Your task to perform on an android device: change notifications settings Image 0: 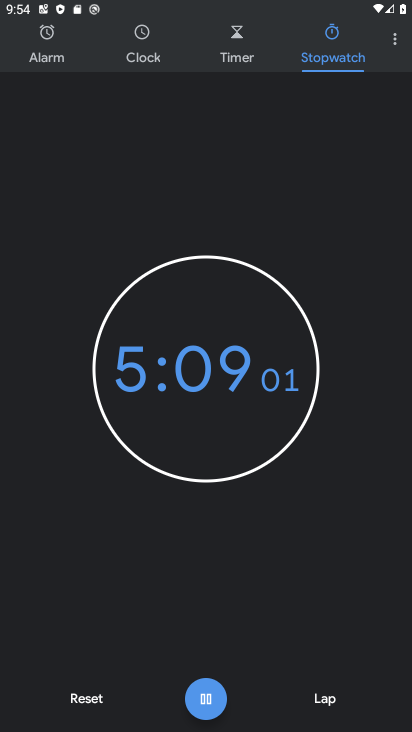
Step 0: press home button
Your task to perform on an android device: change notifications settings Image 1: 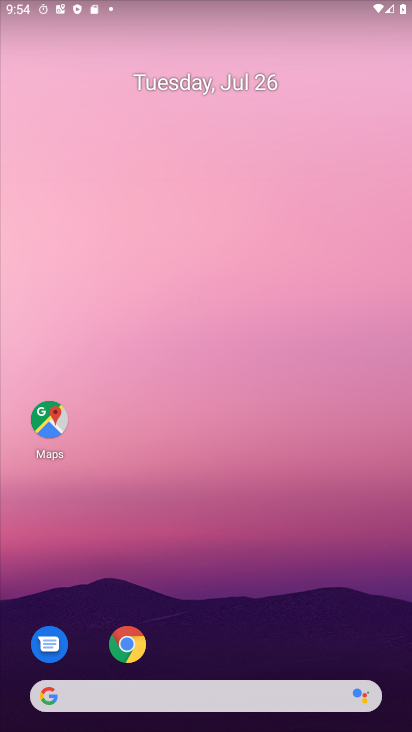
Step 1: drag from (241, 639) to (307, 14)
Your task to perform on an android device: change notifications settings Image 2: 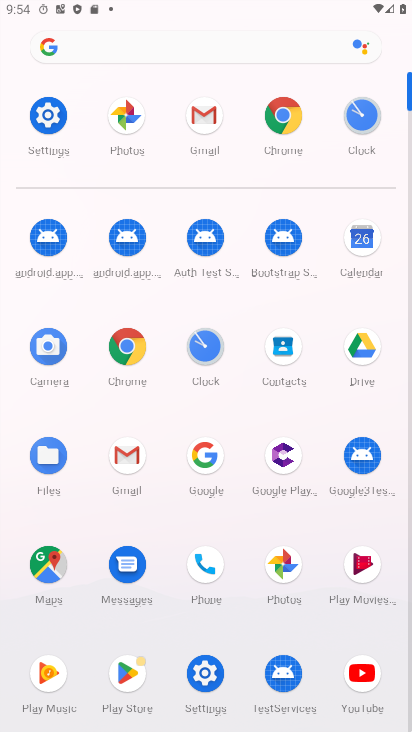
Step 2: click (202, 658)
Your task to perform on an android device: change notifications settings Image 3: 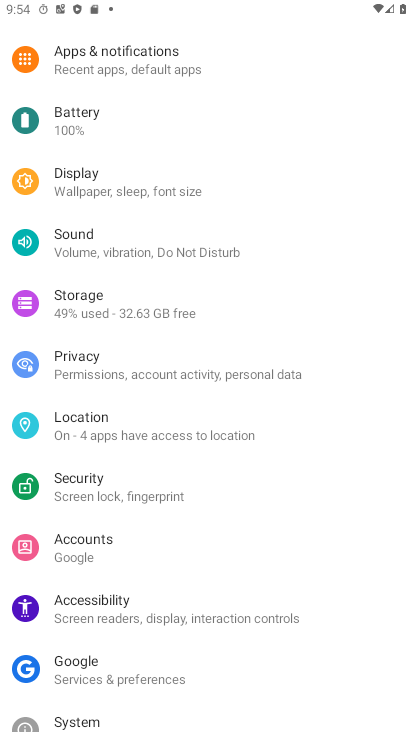
Step 3: click (143, 71)
Your task to perform on an android device: change notifications settings Image 4: 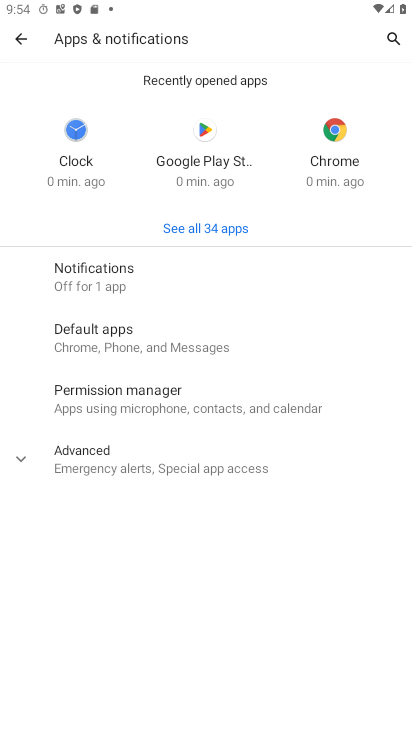
Step 4: click (123, 286)
Your task to perform on an android device: change notifications settings Image 5: 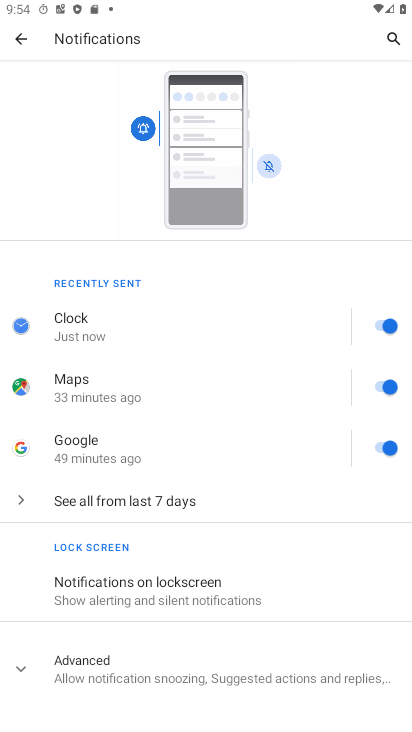
Step 5: click (134, 491)
Your task to perform on an android device: change notifications settings Image 6: 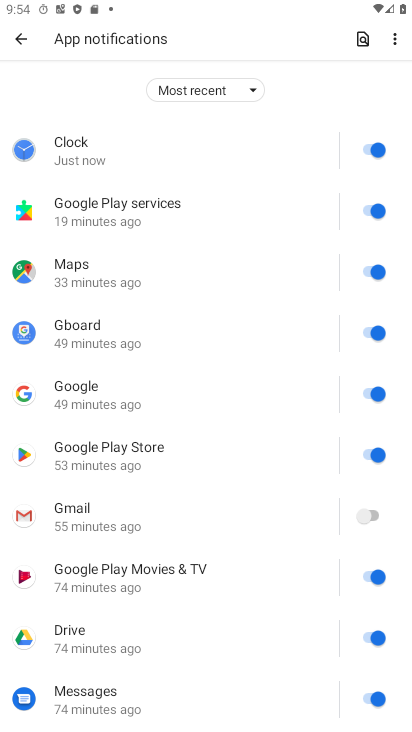
Step 6: click (357, 148)
Your task to perform on an android device: change notifications settings Image 7: 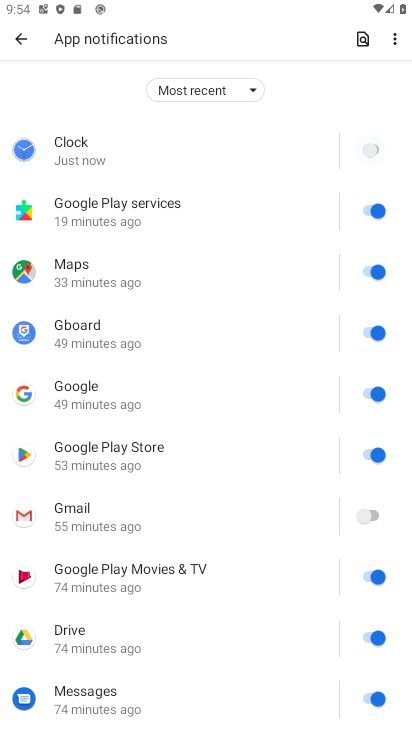
Step 7: click (352, 209)
Your task to perform on an android device: change notifications settings Image 8: 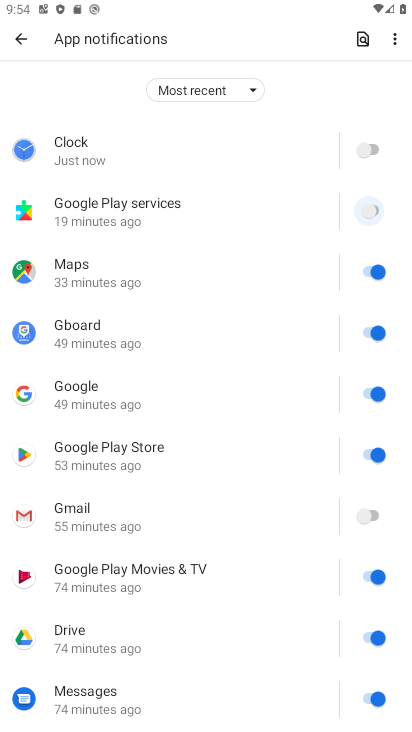
Step 8: click (359, 277)
Your task to perform on an android device: change notifications settings Image 9: 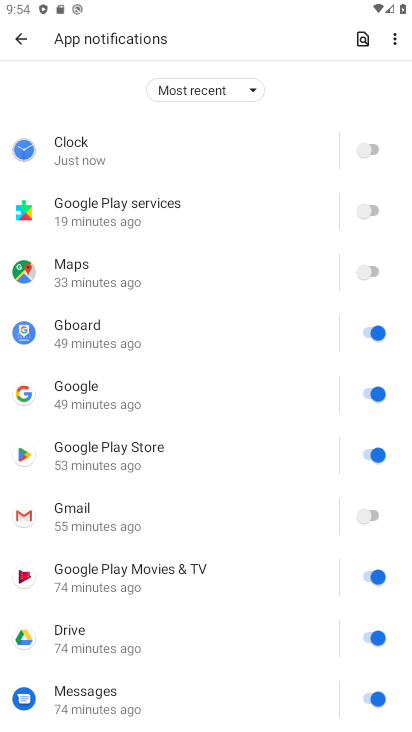
Step 9: click (376, 341)
Your task to perform on an android device: change notifications settings Image 10: 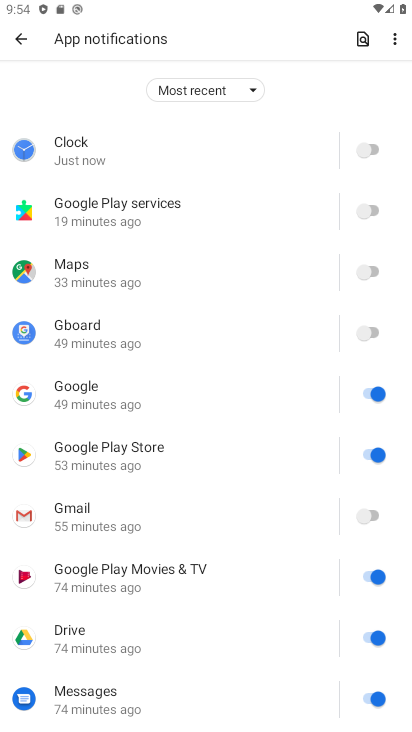
Step 10: click (365, 401)
Your task to perform on an android device: change notifications settings Image 11: 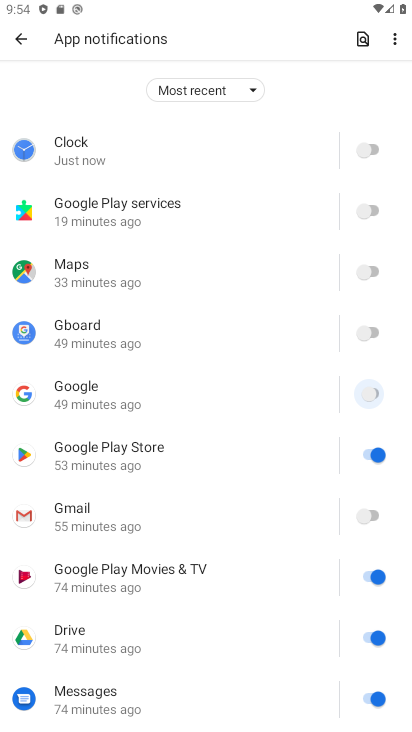
Step 11: click (358, 457)
Your task to perform on an android device: change notifications settings Image 12: 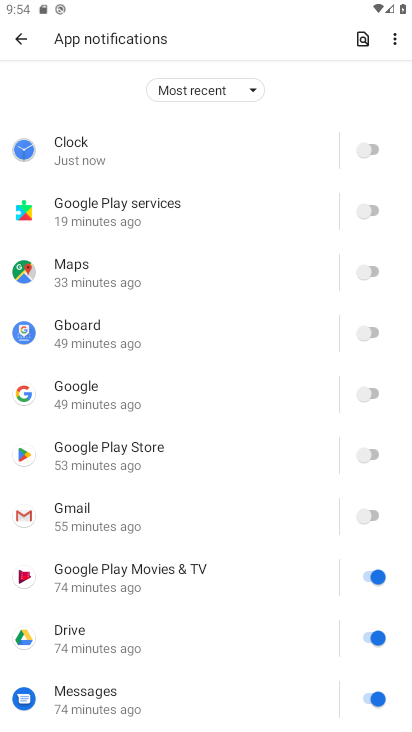
Step 12: click (357, 582)
Your task to perform on an android device: change notifications settings Image 13: 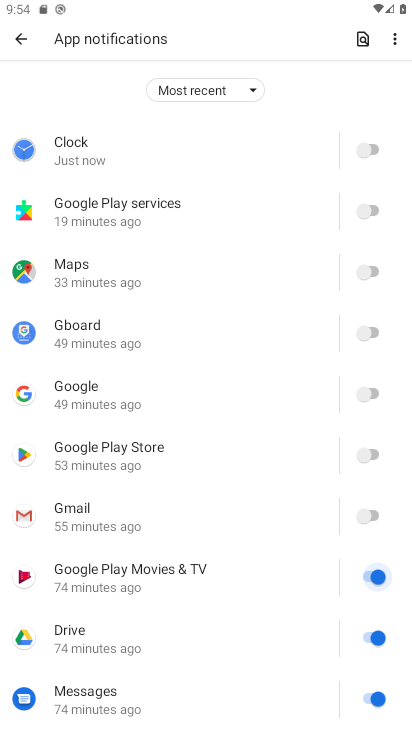
Step 13: click (356, 627)
Your task to perform on an android device: change notifications settings Image 14: 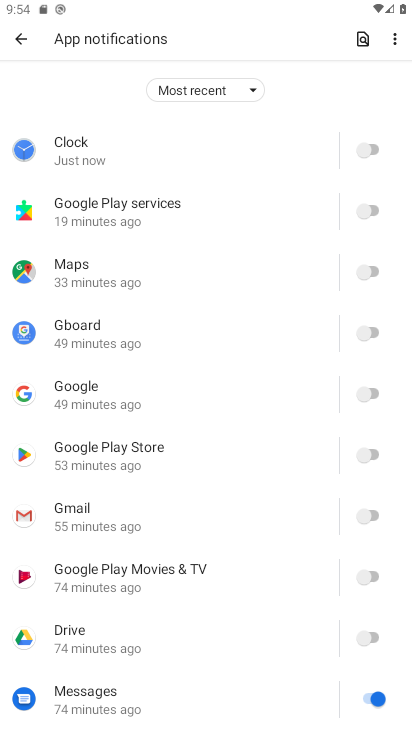
Step 14: drag from (340, 636) to (340, 389)
Your task to perform on an android device: change notifications settings Image 15: 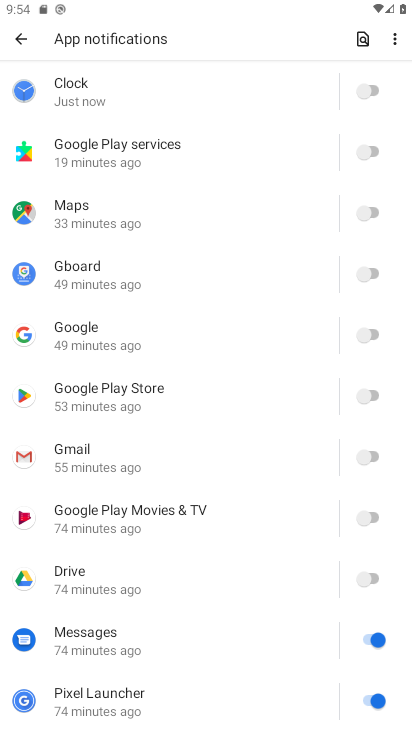
Step 15: click (353, 709)
Your task to perform on an android device: change notifications settings Image 16: 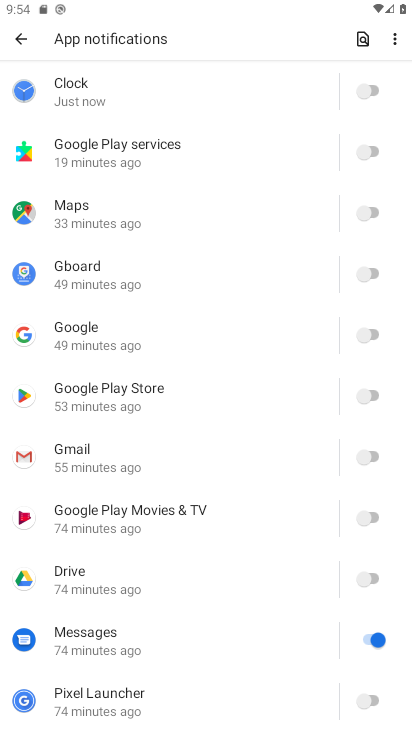
Step 16: click (355, 634)
Your task to perform on an android device: change notifications settings Image 17: 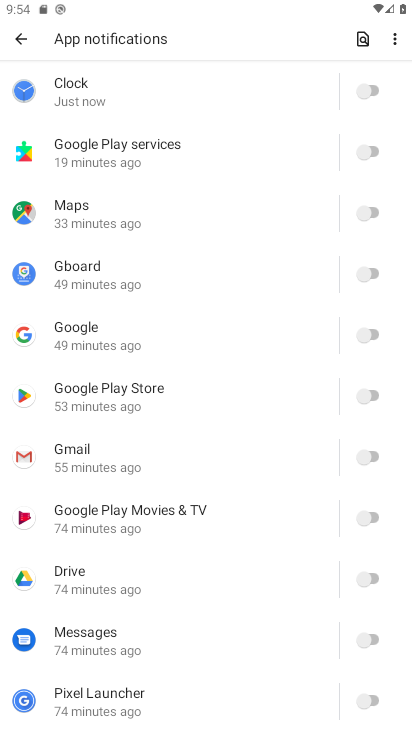
Step 17: task complete